Your task to perform on an android device: toggle airplane mode Image 0: 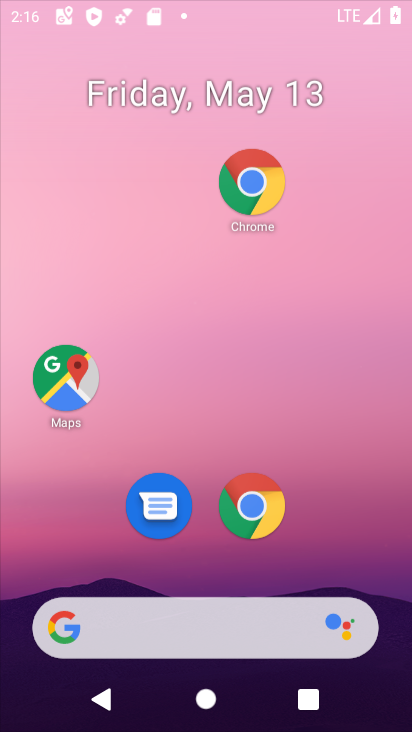
Step 0: drag from (331, 580) to (56, 2)
Your task to perform on an android device: toggle airplane mode Image 1: 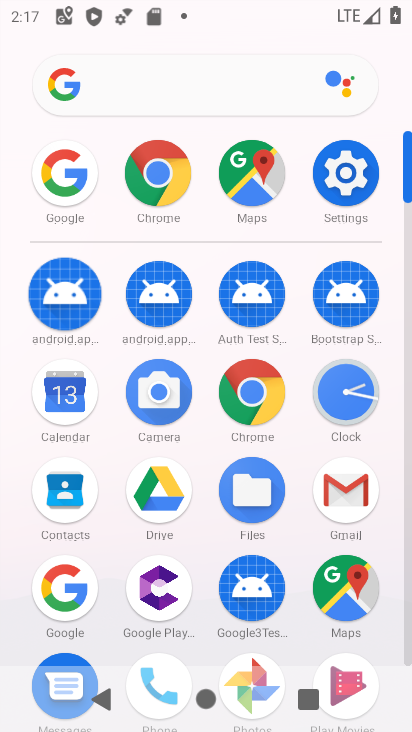
Step 1: click (329, 175)
Your task to perform on an android device: toggle airplane mode Image 2: 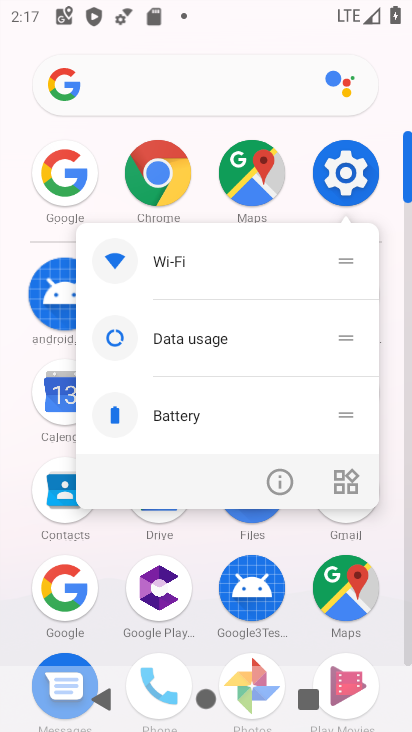
Step 2: click (344, 174)
Your task to perform on an android device: toggle airplane mode Image 3: 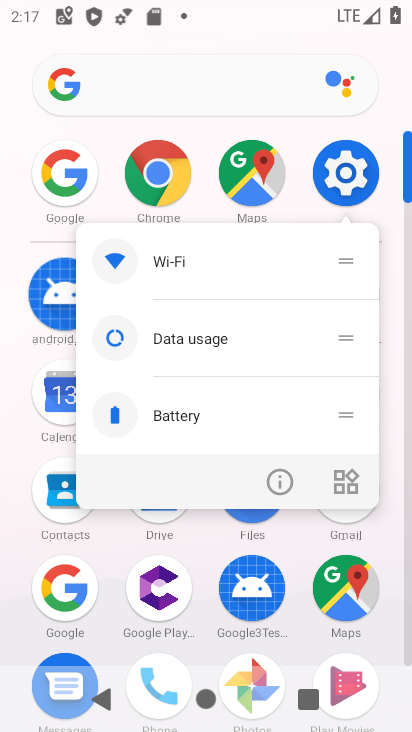
Step 3: click (340, 174)
Your task to perform on an android device: toggle airplane mode Image 4: 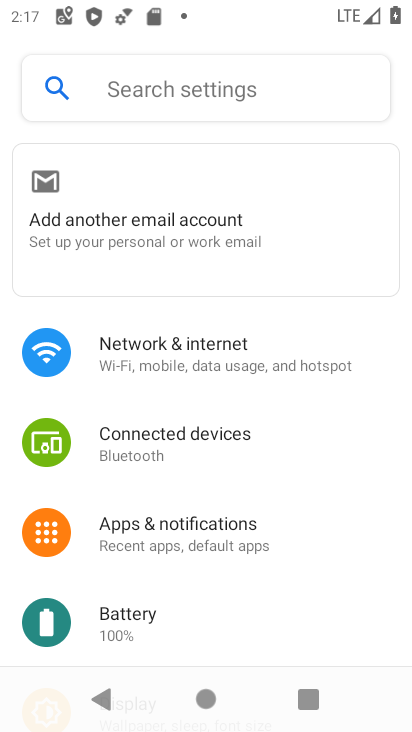
Step 4: click (189, 345)
Your task to perform on an android device: toggle airplane mode Image 5: 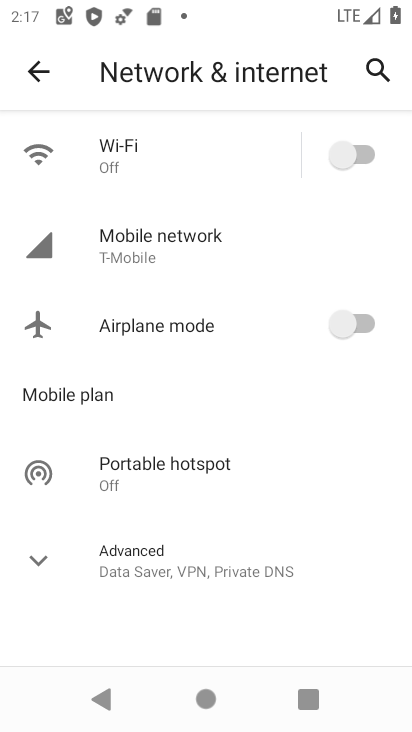
Step 5: click (346, 325)
Your task to perform on an android device: toggle airplane mode Image 6: 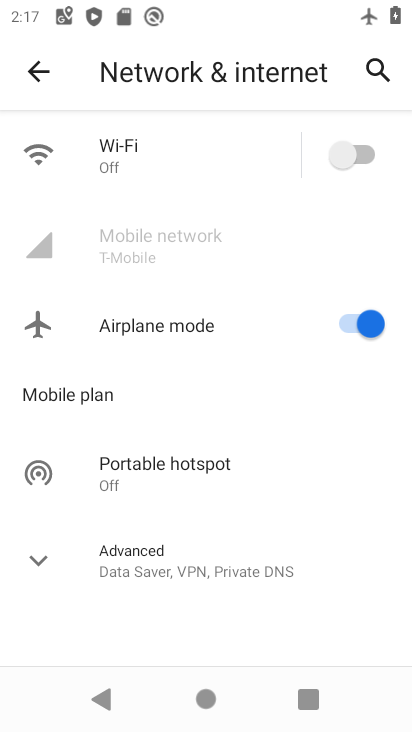
Step 6: task complete